Your task to perform on an android device: move an email to a new category in the gmail app Image 0: 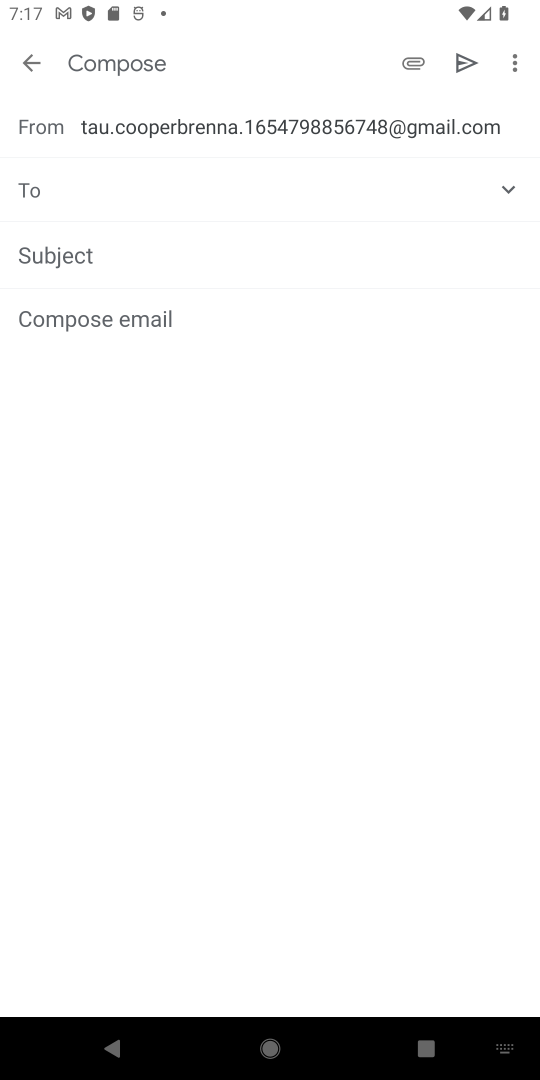
Step 0: press home button
Your task to perform on an android device: move an email to a new category in the gmail app Image 1: 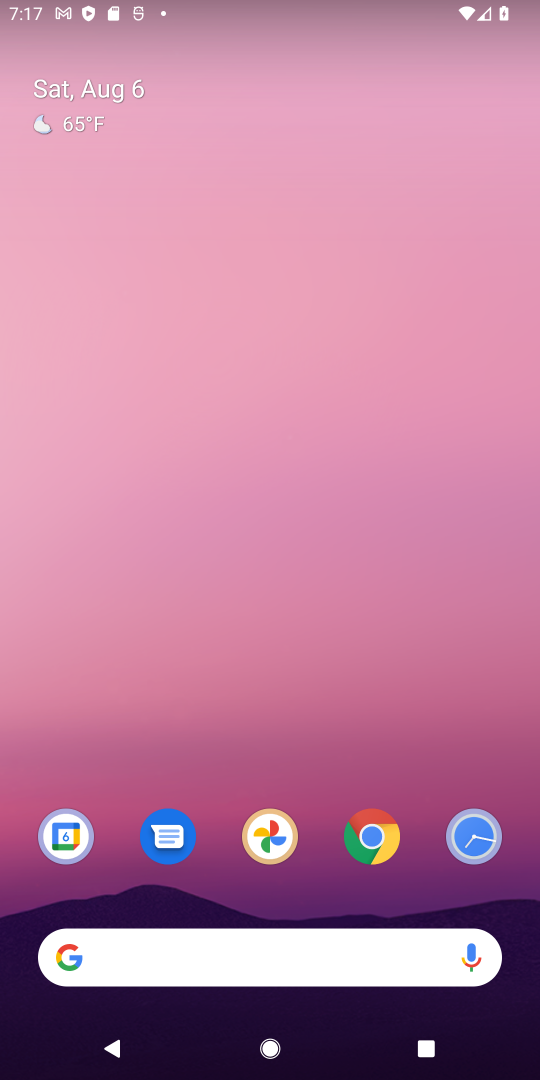
Step 1: drag from (457, 905) to (218, 99)
Your task to perform on an android device: move an email to a new category in the gmail app Image 2: 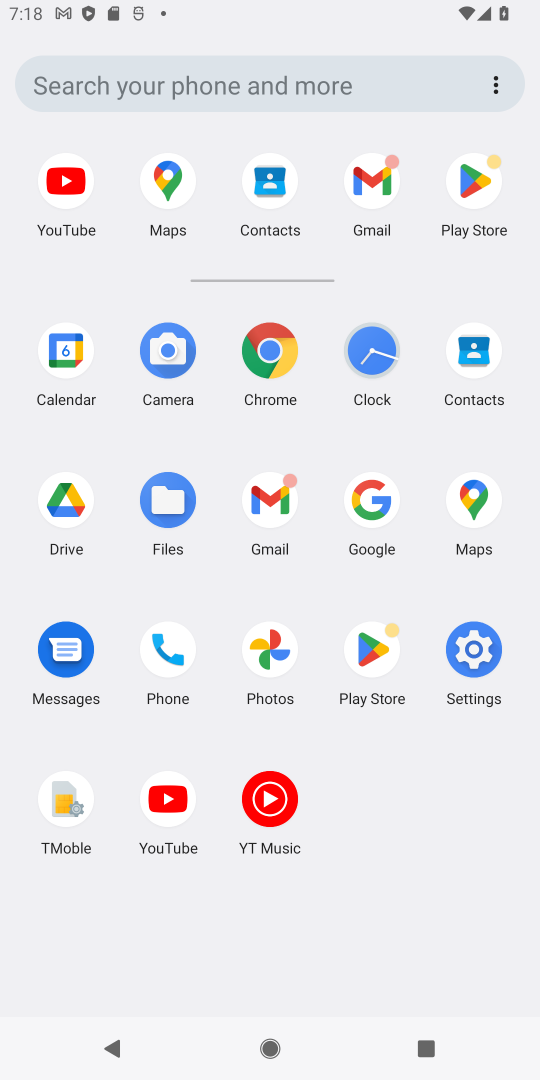
Step 2: click (258, 520)
Your task to perform on an android device: move an email to a new category in the gmail app Image 3: 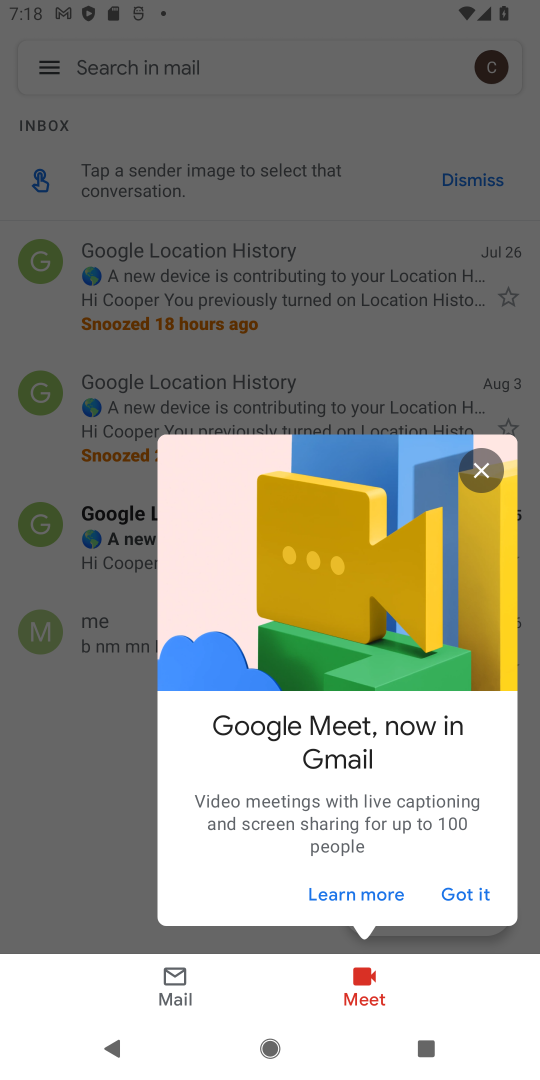
Step 3: click (462, 894)
Your task to perform on an android device: move an email to a new category in the gmail app Image 4: 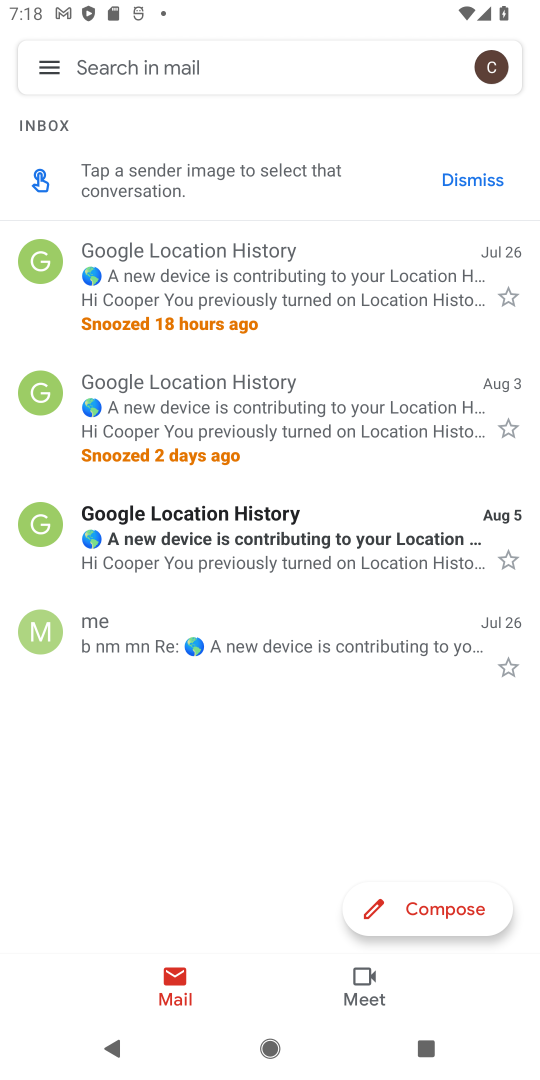
Step 4: task complete